Your task to perform on an android device: toggle translation in the chrome app Image 0: 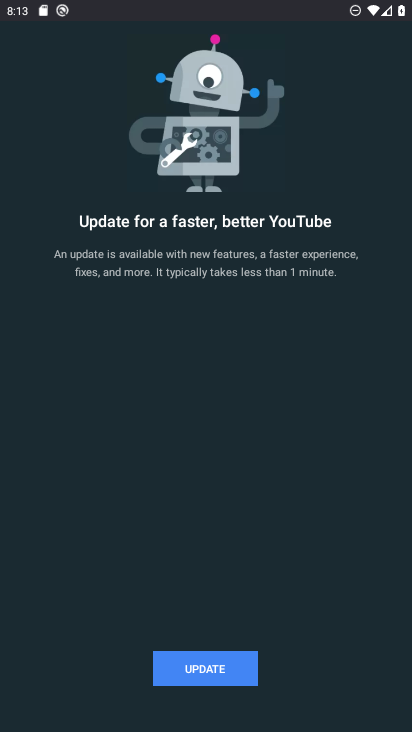
Step 0: press home button
Your task to perform on an android device: toggle translation in the chrome app Image 1: 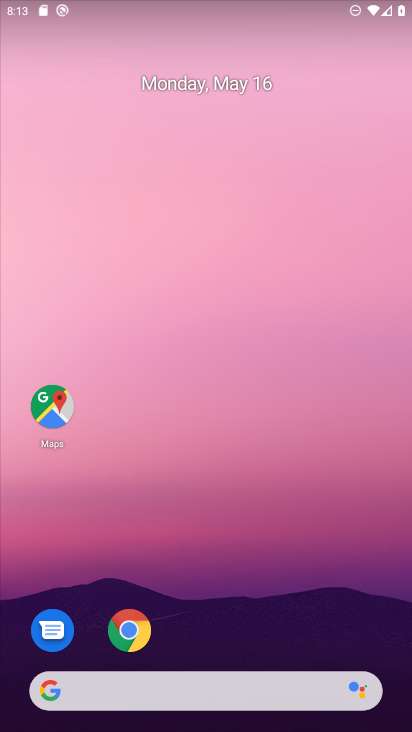
Step 1: click (136, 624)
Your task to perform on an android device: toggle translation in the chrome app Image 2: 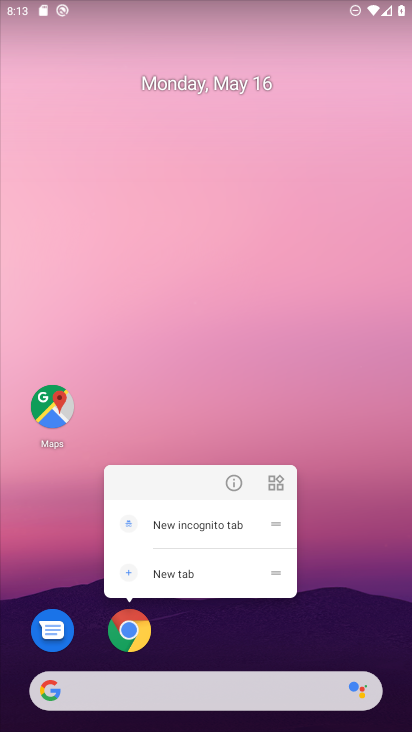
Step 2: click (137, 624)
Your task to perform on an android device: toggle translation in the chrome app Image 3: 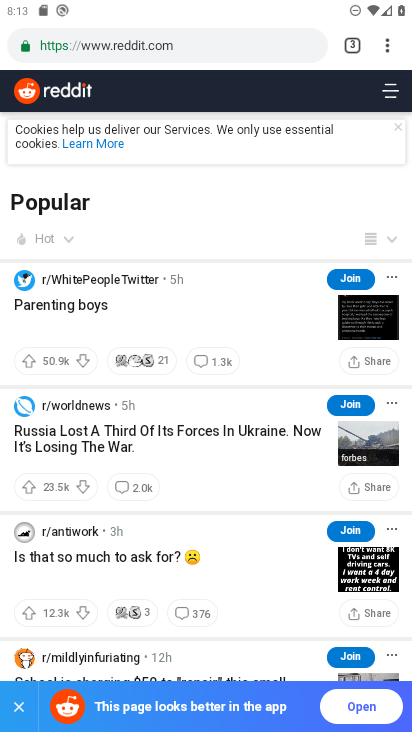
Step 3: click (381, 45)
Your task to perform on an android device: toggle translation in the chrome app Image 4: 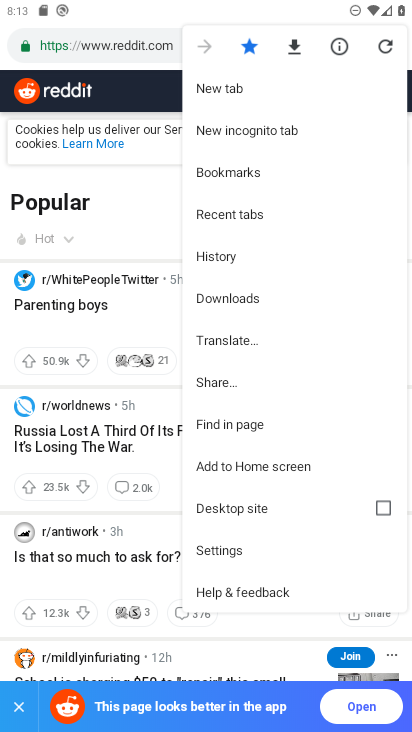
Step 4: click (272, 545)
Your task to perform on an android device: toggle translation in the chrome app Image 5: 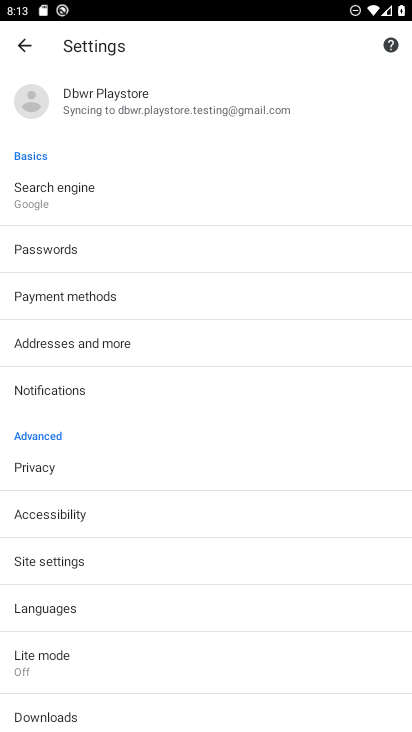
Step 5: drag from (317, 450) to (313, 316)
Your task to perform on an android device: toggle translation in the chrome app Image 6: 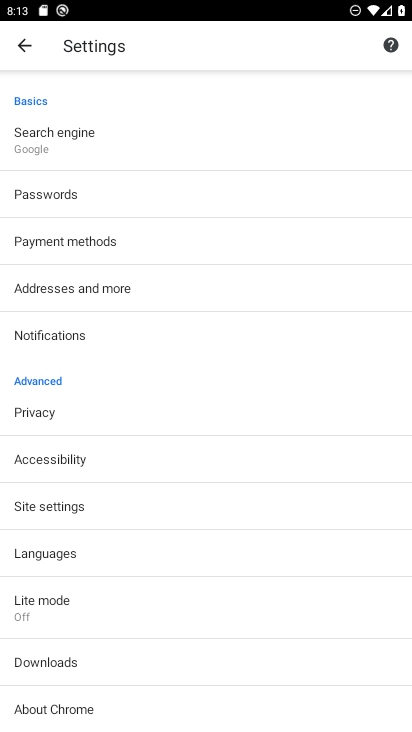
Step 6: click (240, 496)
Your task to perform on an android device: toggle translation in the chrome app Image 7: 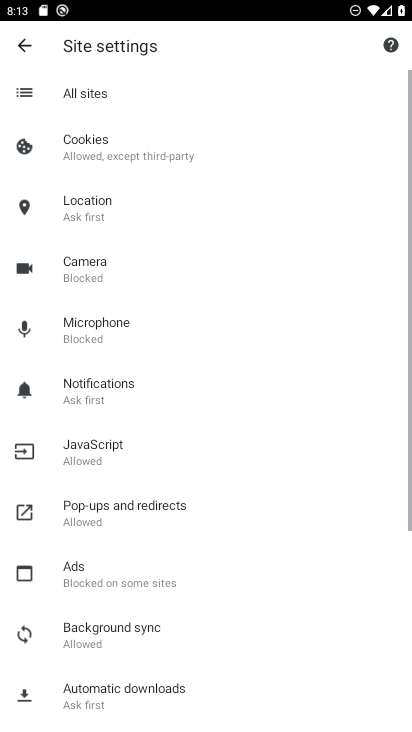
Step 7: drag from (301, 490) to (282, 186)
Your task to perform on an android device: toggle translation in the chrome app Image 8: 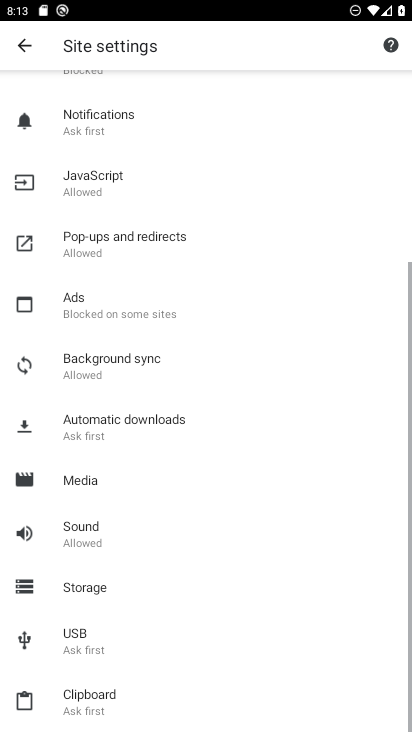
Step 8: drag from (288, 573) to (270, 443)
Your task to perform on an android device: toggle translation in the chrome app Image 9: 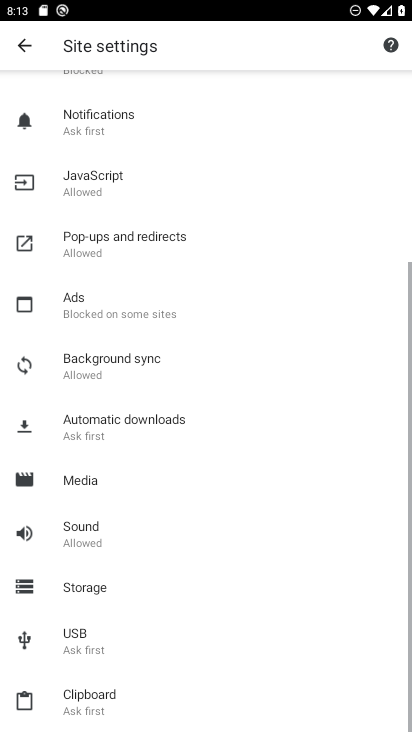
Step 9: drag from (279, 252) to (317, 614)
Your task to perform on an android device: toggle translation in the chrome app Image 10: 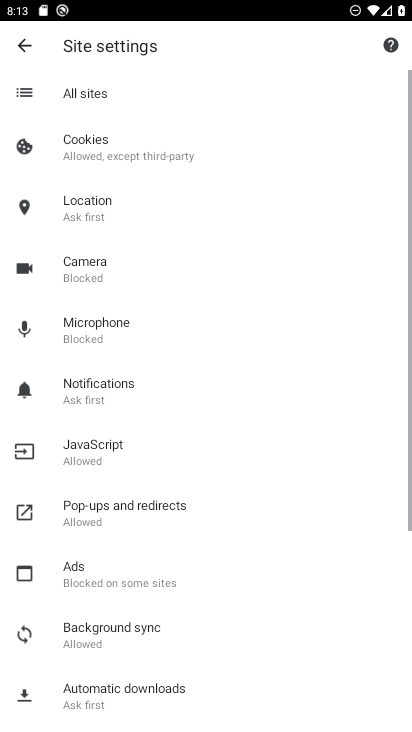
Step 10: drag from (285, 303) to (240, 606)
Your task to perform on an android device: toggle translation in the chrome app Image 11: 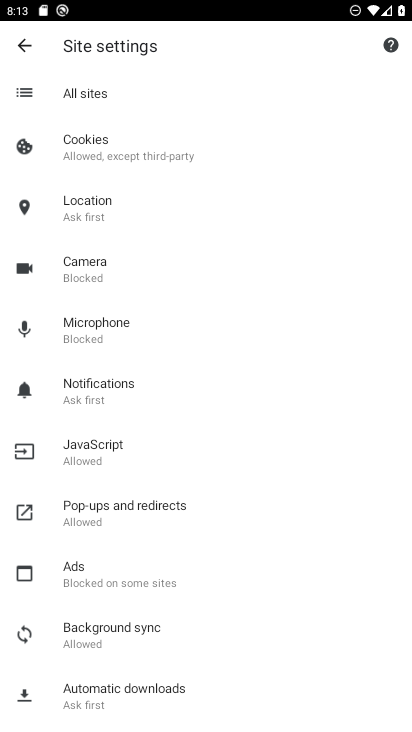
Step 11: press back button
Your task to perform on an android device: toggle translation in the chrome app Image 12: 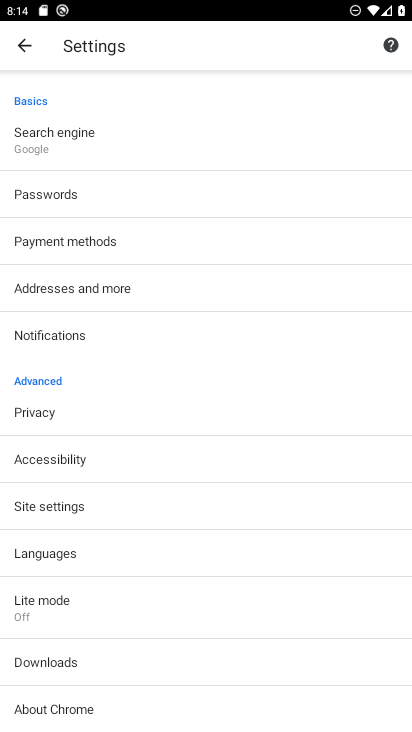
Step 12: drag from (206, 322) to (227, 663)
Your task to perform on an android device: toggle translation in the chrome app Image 13: 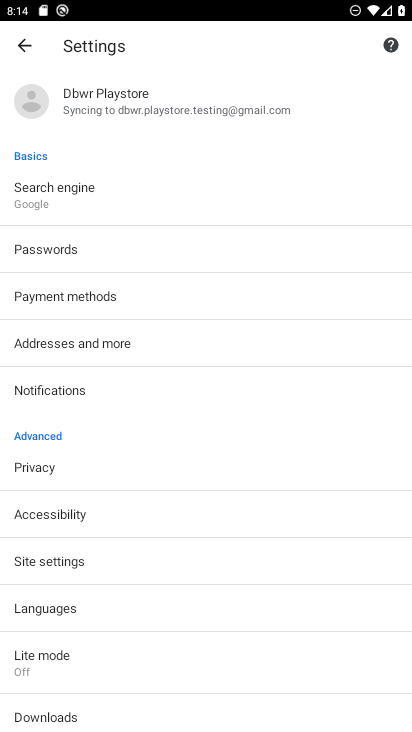
Step 13: drag from (136, 436) to (146, 157)
Your task to perform on an android device: toggle translation in the chrome app Image 14: 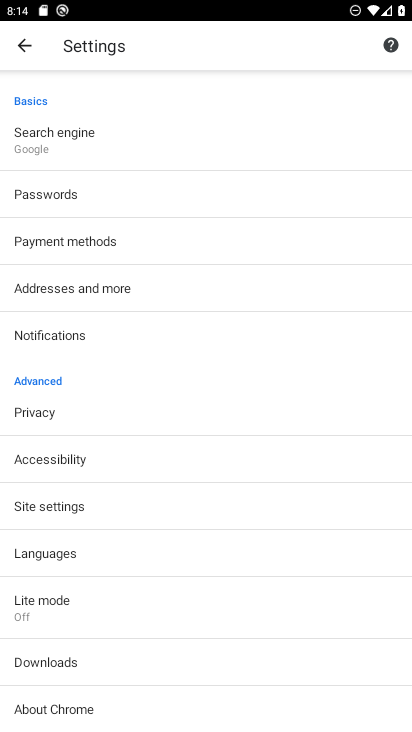
Step 14: click (197, 418)
Your task to perform on an android device: toggle translation in the chrome app Image 15: 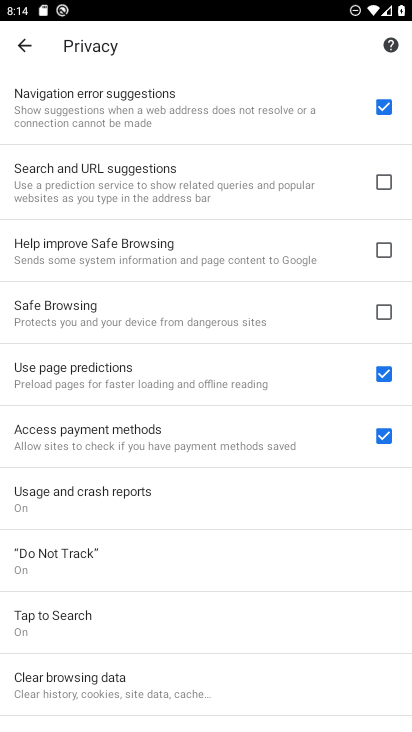
Step 15: drag from (240, 518) to (273, 26)
Your task to perform on an android device: toggle translation in the chrome app Image 16: 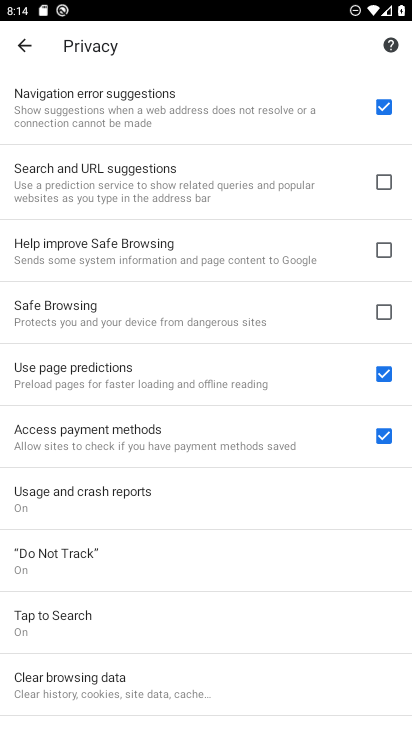
Step 16: press back button
Your task to perform on an android device: toggle translation in the chrome app Image 17: 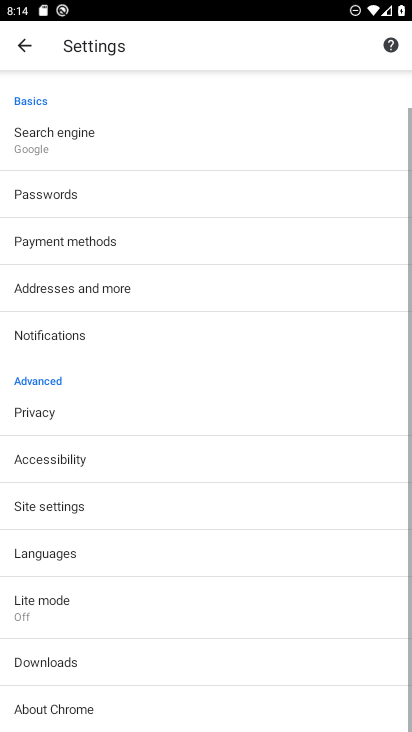
Step 17: drag from (241, 597) to (245, 282)
Your task to perform on an android device: toggle translation in the chrome app Image 18: 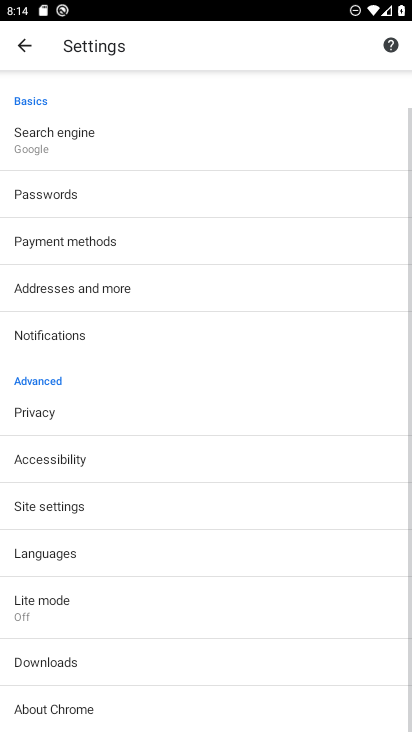
Step 18: click (215, 537)
Your task to perform on an android device: toggle translation in the chrome app Image 19: 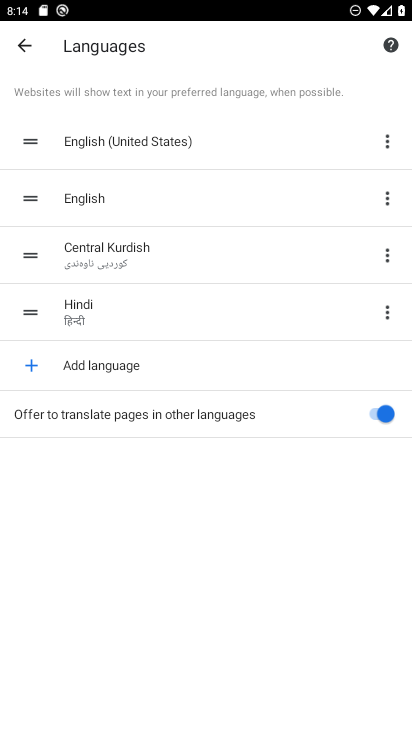
Step 19: task complete